Your task to perform on an android device: change your default location settings in chrome Image 0: 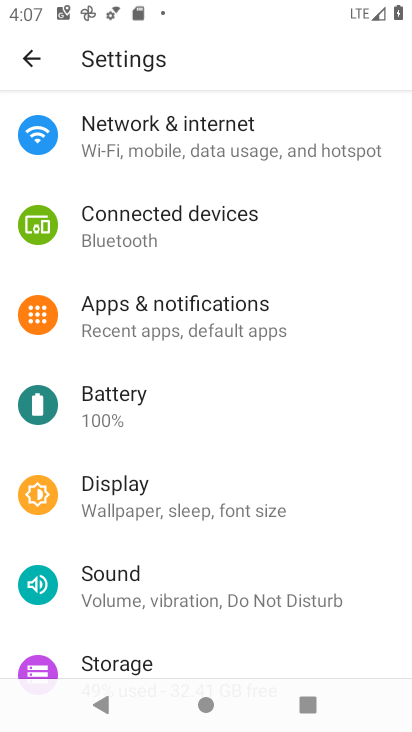
Step 0: press home button
Your task to perform on an android device: change your default location settings in chrome Image 1: 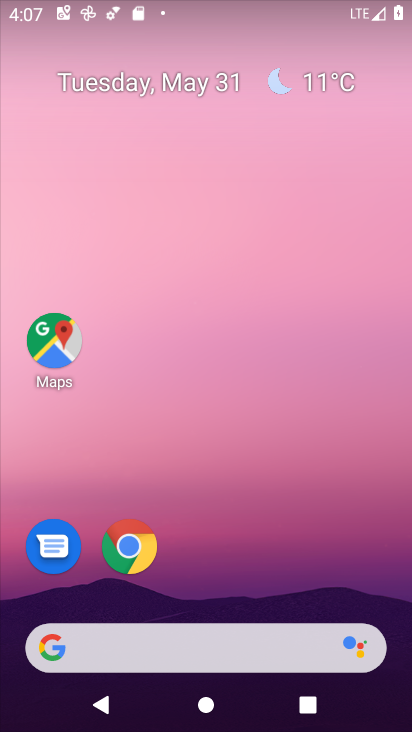
Step 1: click (126, 542)
Your task to perform on an android device: change your default location settings in chrome Image 2: 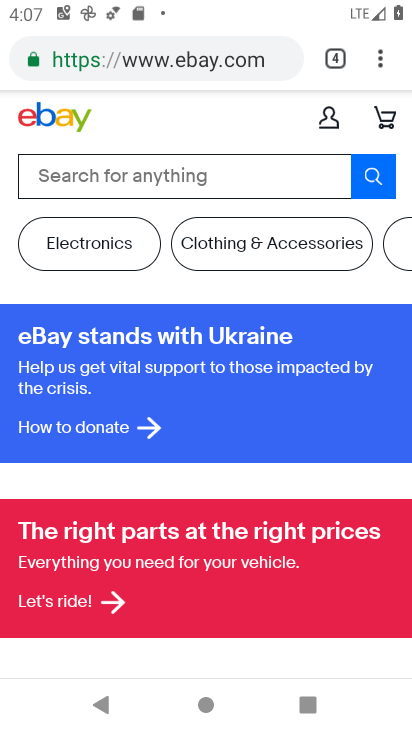
Step 2: click (375, 70)
Your task to perform on an android device: change your default location settings in chrome Image 3: 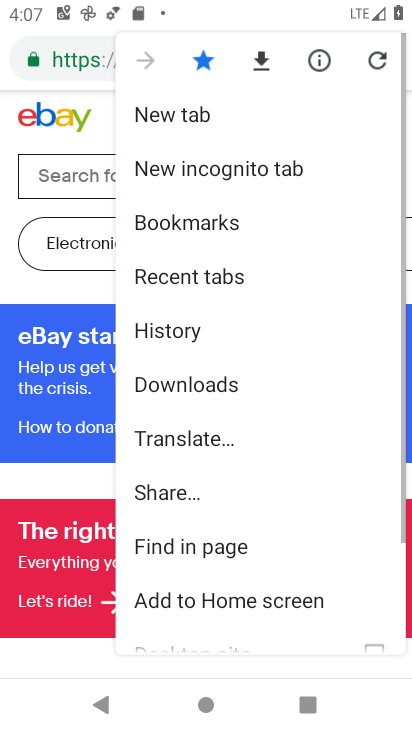
Step 3: drag from (198, 583) to (192, 276)
Your task to perform on an android device: change your default location settings in chrome Image 4: 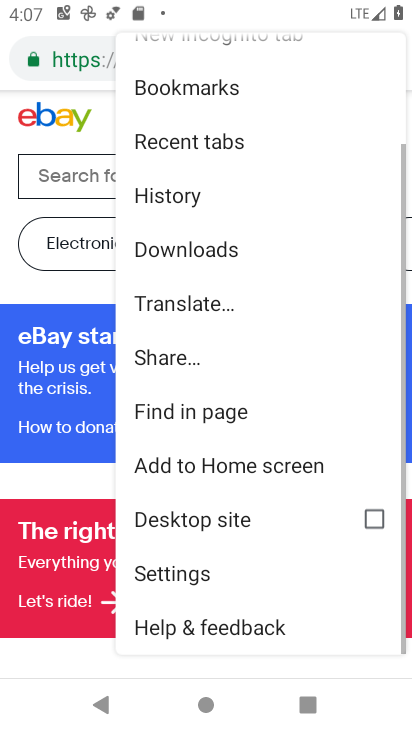
Step 4: click (181, 583)
Your task to perform on an android device: change your default location settings in chrome Image 5: 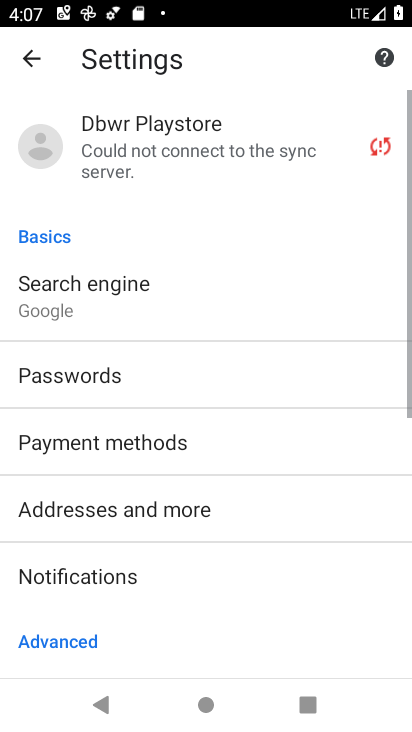
Step 5: drag from (122, 544) to (130, 188)
Your task to perform on an android device: change your default location settings in chrome Image 6: 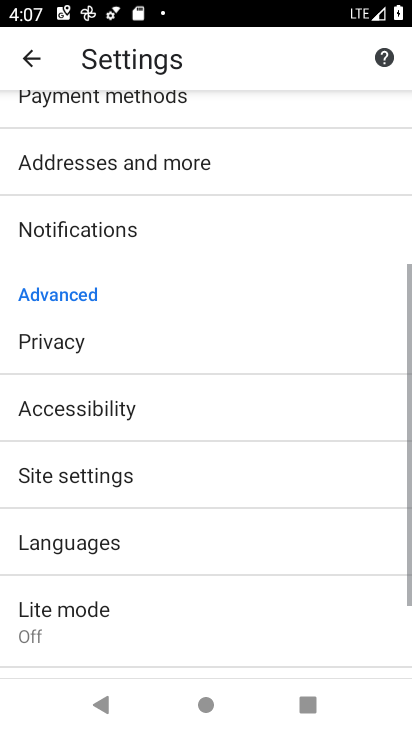
Step 6: click (86, 492)
Your task to perform on an android device: change your default location settings in chrome Image 7: 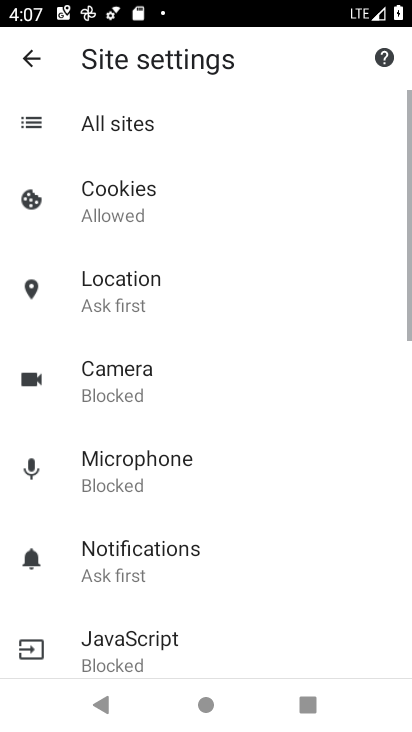
Step 7: click (132, 278)
Your task to perform on an android device: change your default location settings in chrome Image 8: 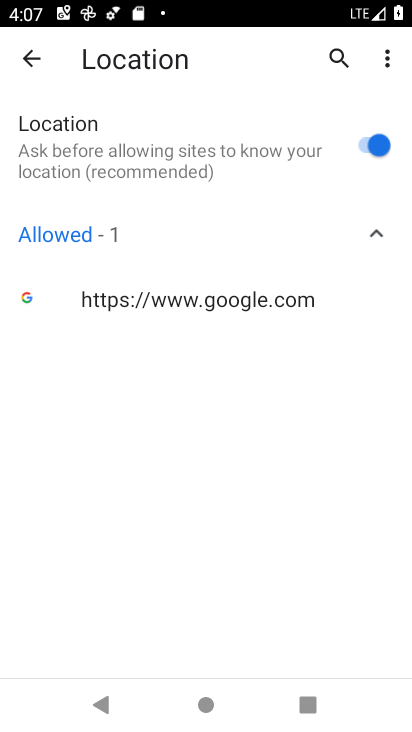
Step 8: click (370, 148)
Your task to perform on an android device: change your default location settings in chrome Image 9: 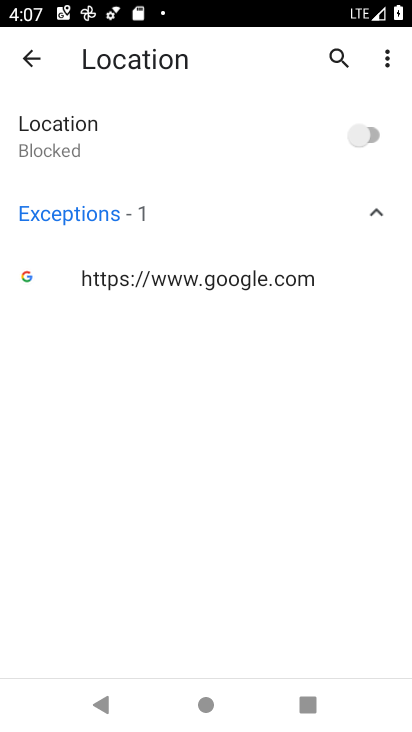
Step 9: task complete